Your task to perform on an android device: Go to Reddit.com Image 0: 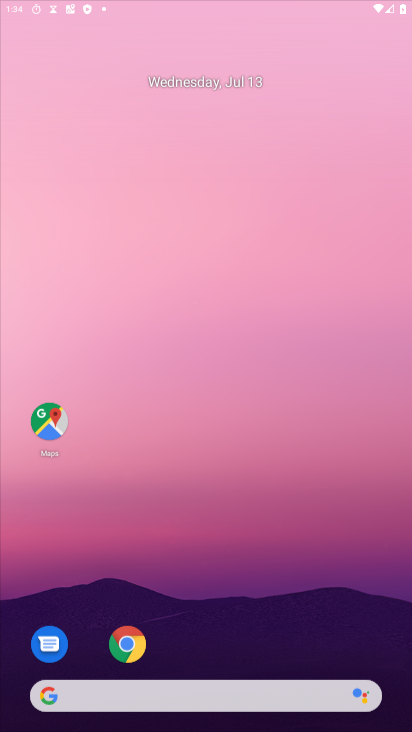
Step 0: press home button
Your task to perform on an android device: Go to Reddit.com Image 1: 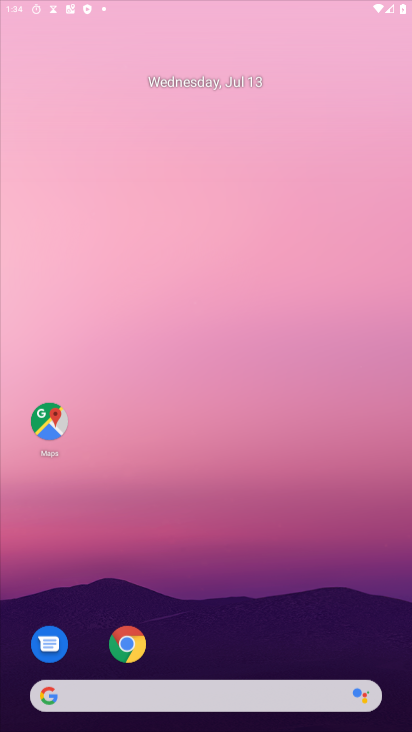
Step 1: click (220, 94)
Your task to perform on an android device: Go to Reddit.com Image 2: 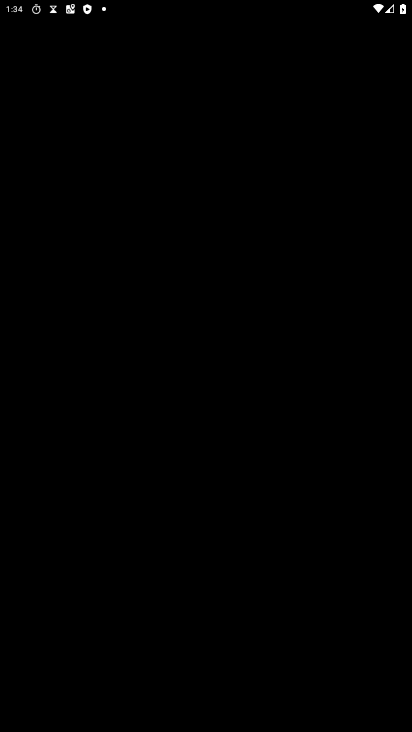
Step 2: press home button
Your task to perform on an android device: Go to Reddit.com Image 3: 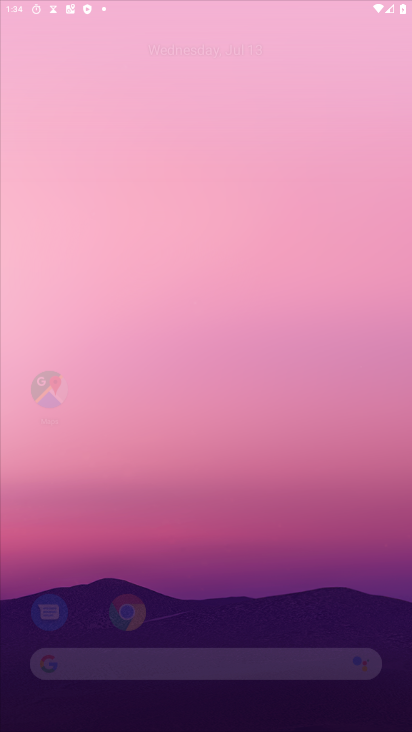
Step 3: click (398, 513)
Your task to perform on an android device: Go to Reddit.com Image 4: 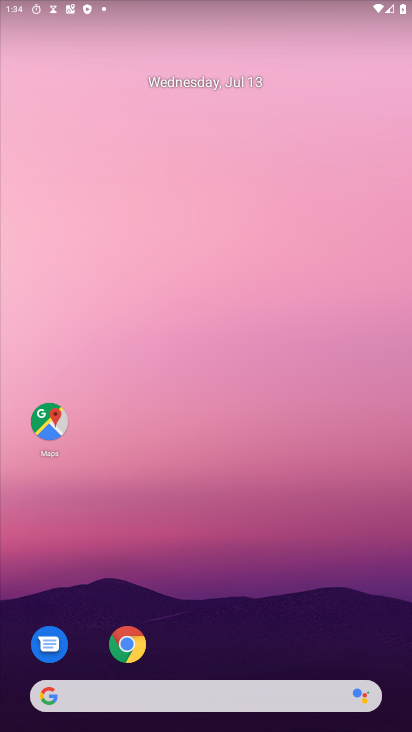
Step 4: drag from (245, 576) to (334, 544)
Your task to perform on an android device: Go to Reddit.com Image 5: 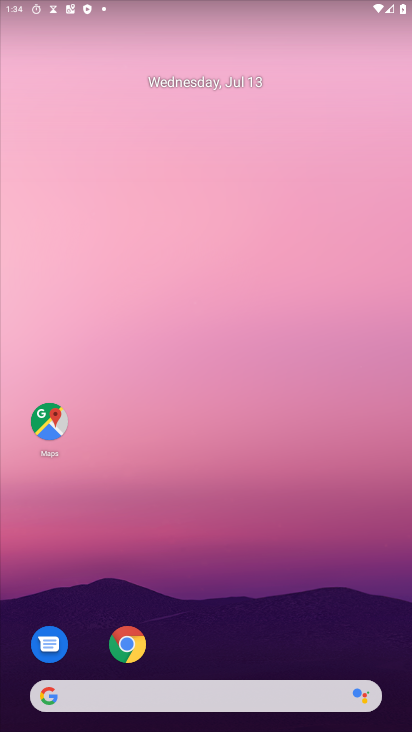
Step 5: click (207, 624)
Your task to perform on an android device: Go to Reddit.com Image 6: 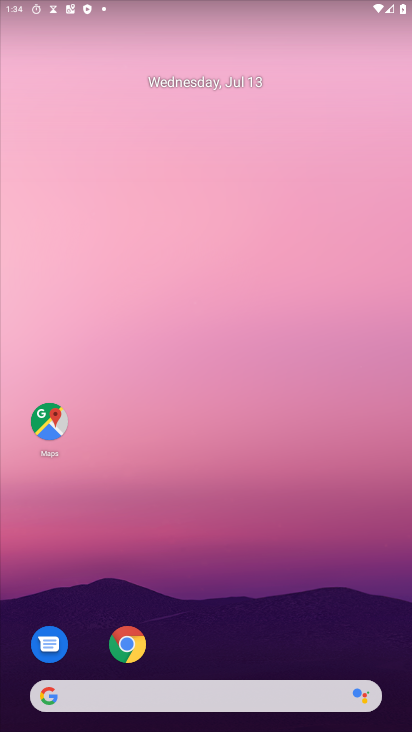
Step 6: click (185, 691)
Your task to perform on an android device: Go to Reddit.com Image 7: 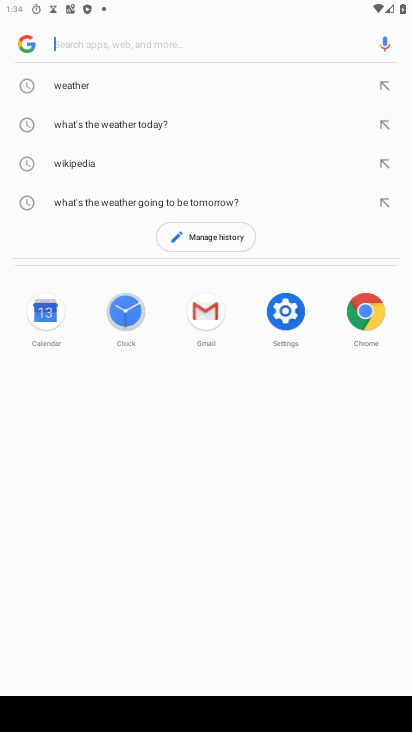
Step 7: type "Reddit.com"
Your task to perform on an android device: Go to Reddit.com Image 8: 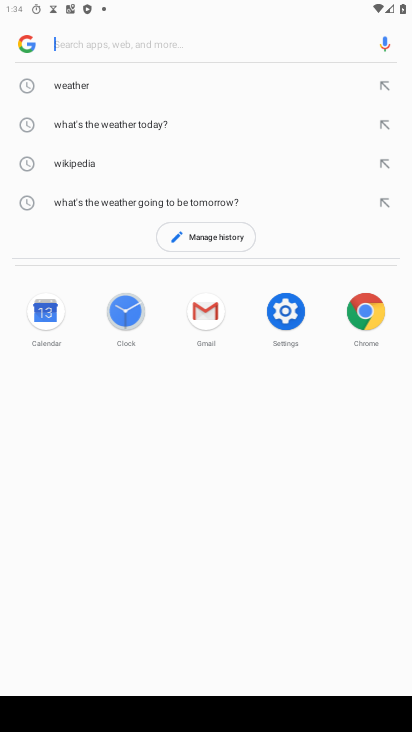
Step 8: click (88, 47)
Your task to perform on an android device: Go to Reddit.com Image 9: 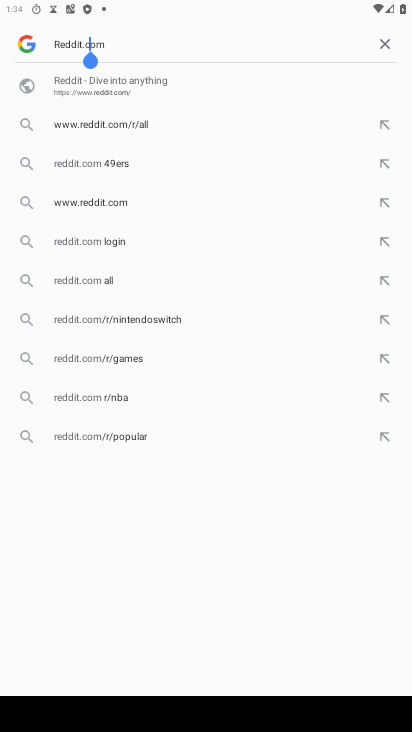
Step 9: press enter
Your task to perform on an android device: Go to Reddit.com Image 10: 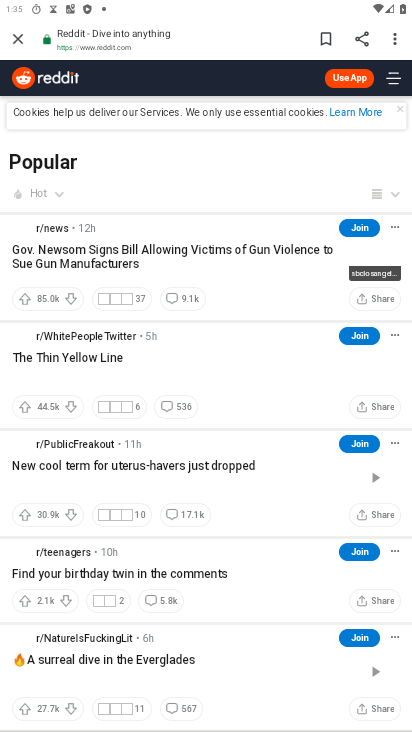
Step 10: task complete